Your task to perform on an android device: open a bookmark in the chrome app Image 0: 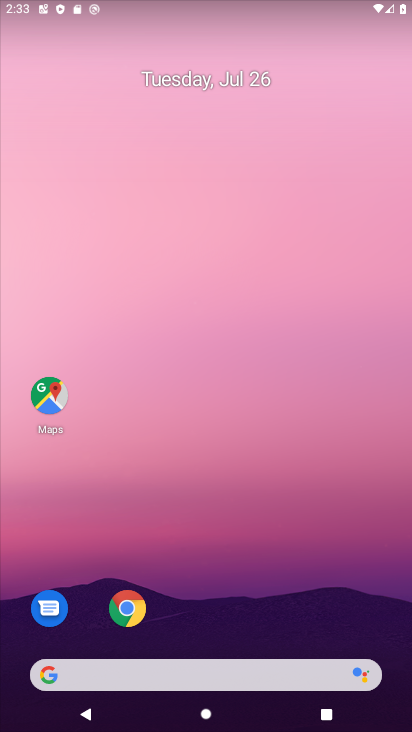
Step 0: click (135, 623)
Your task to perform on an android device: open a bookmark in the chrome app Image 1: 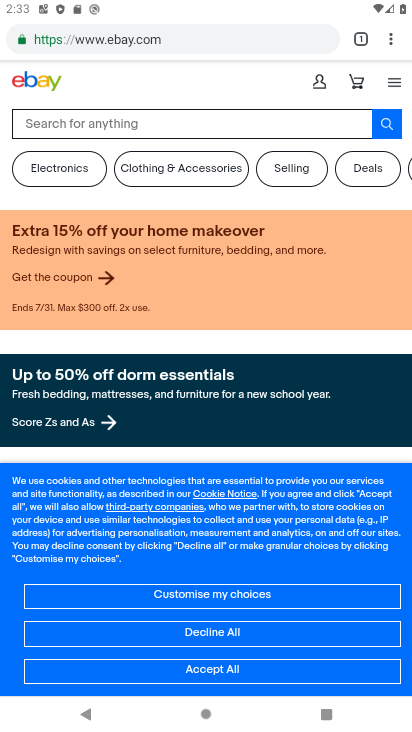
Step 1: task complete